Your task to perform on an android device: toggle wifi Image 0: 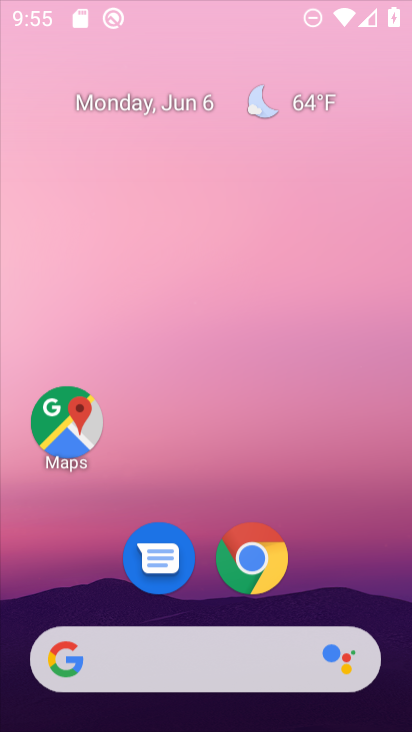
Step 0: click (245, 554)
Your task to perform on an android device: toggle wifi Image 1: 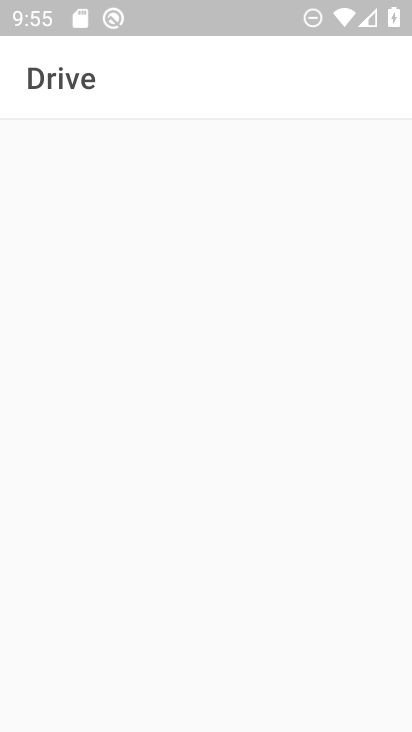
Step 1: press home button
Your task to perform on an android device: toggle wifi Image 2: 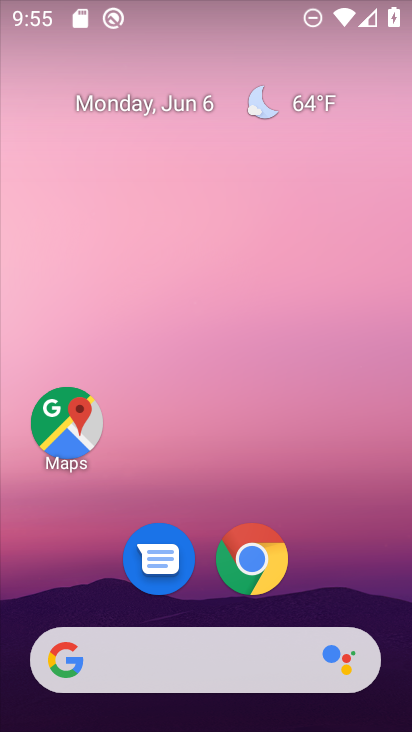
Step 2: drag from (212, 730) to (216, 135)
Your task to perform on an android device: toggle wifi Image 3: 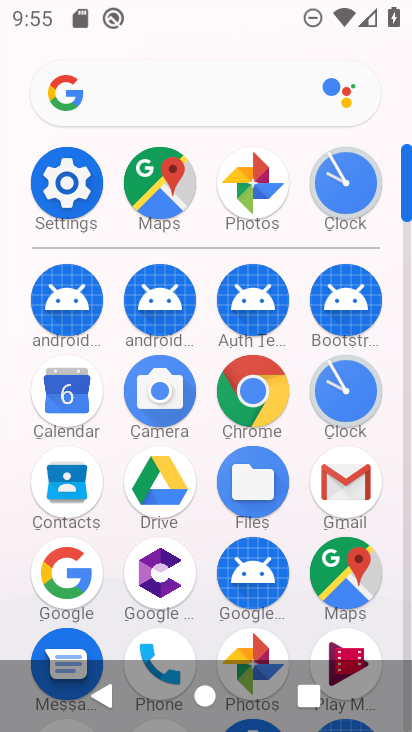
Step 3: click (67, 180)
Your task to perform on an android device: toggle wifi Image 4: 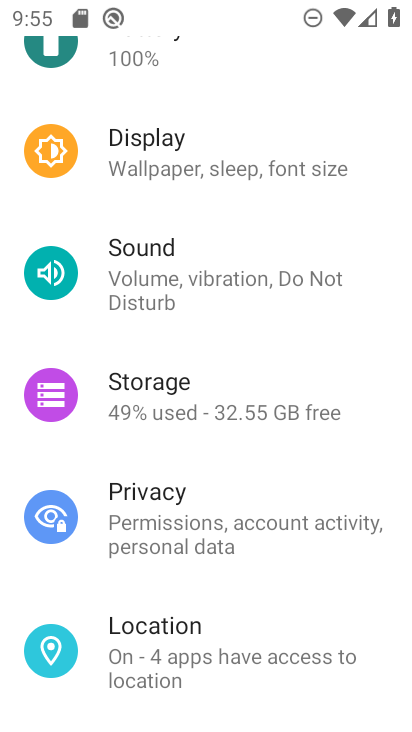
Step 4: drag from (254, 132) to (281, 477)
Your task to perform on an android device: toggle wifi Image 5: 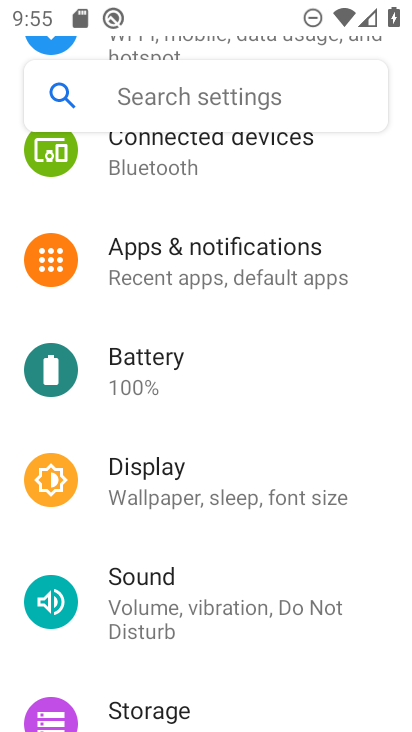
Step 5: drag from (268, 209) to (306, 567)
Your task to perform on an android device: toggle wifi Image 6: 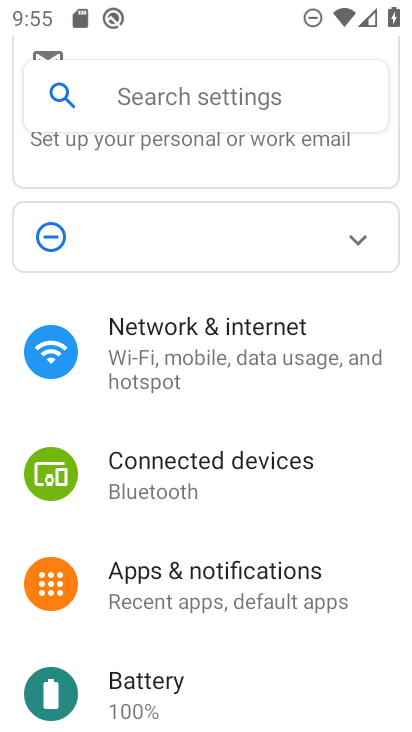
Step 6: click (225, 355)
Your task to perform on an android device: toggle wifi Image 7: 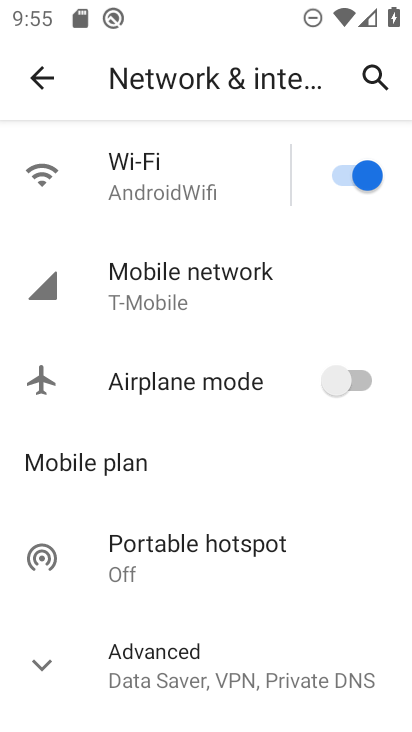
Step 7: click (341, 172)
Your task to perform on an android device: toggle wifi Image 8: 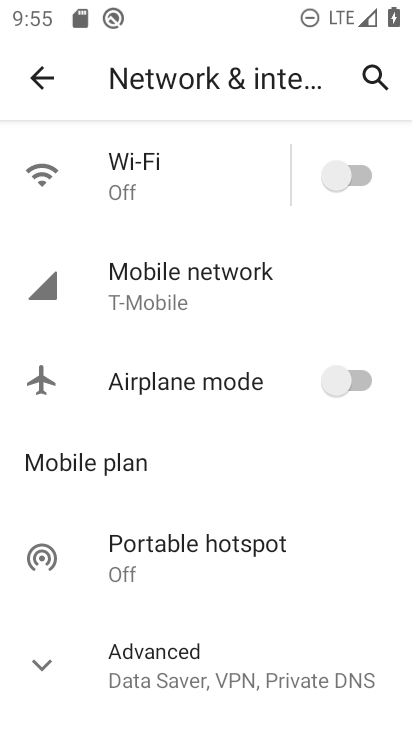
Step 8: task complete